Your task to perform on an android device: Open eBay Image 0: 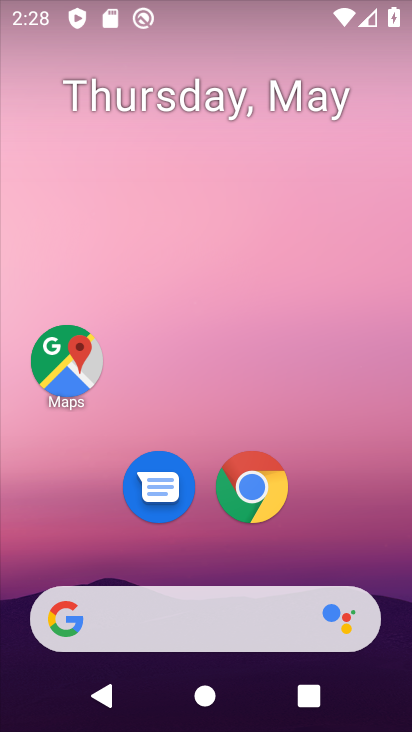
Step 0: drag from (212, 474) to (246, 62)
Your task to perform on an android device: Open eBay Image 1: 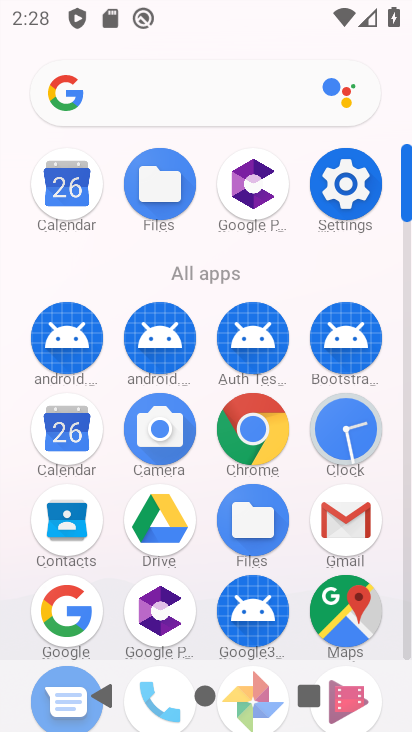
Step 1: click (266, 442)
Your task to perform on an android device: Open eBay Image 2: 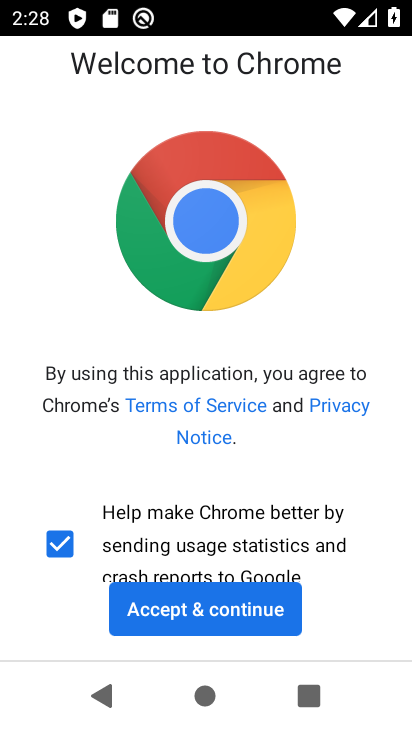
Step 2: click (228, 608)
Your task to perform on an android device: Open eBay Image 3: 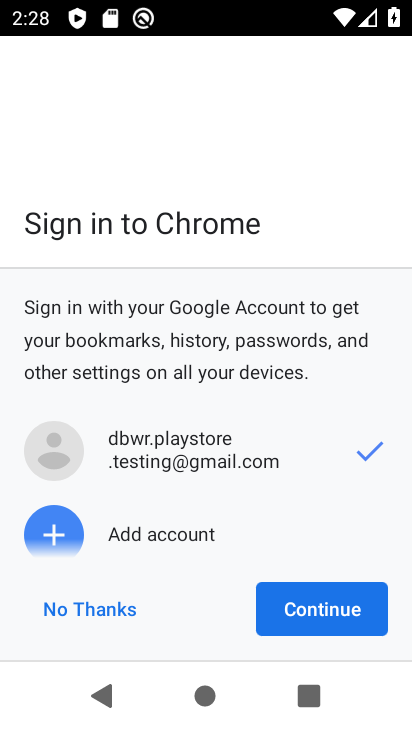
Step 3: click (307, 611)
Your task to perform on an android device: Open eBay Image 4: 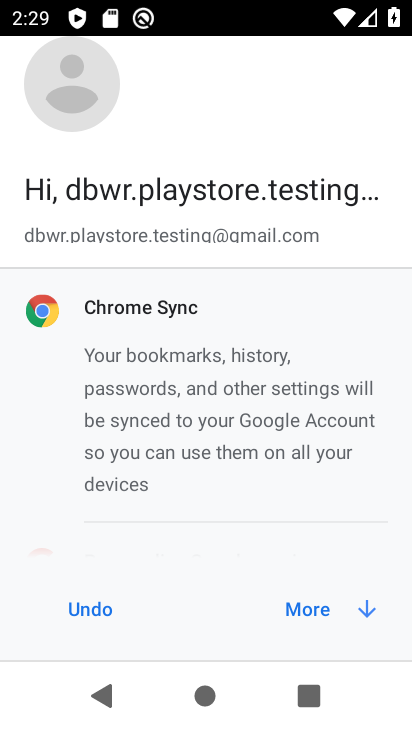
Step 4: click (344, 606)
Your task to perform on an android device: Open eBay Image 5: 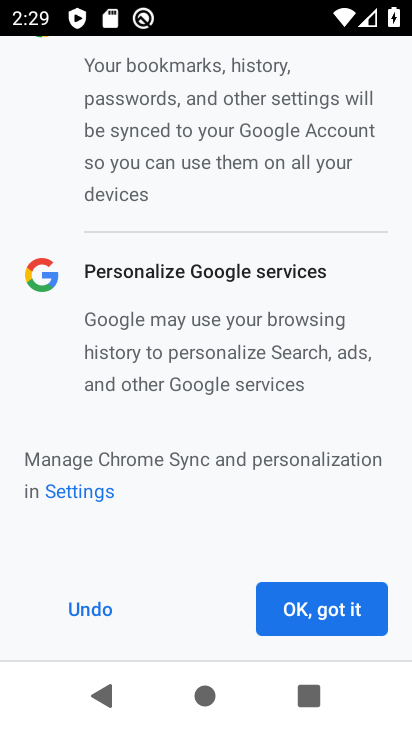
Step 5: click (341, 605)
Your task to perform on an android device: Open eBay Image 6: 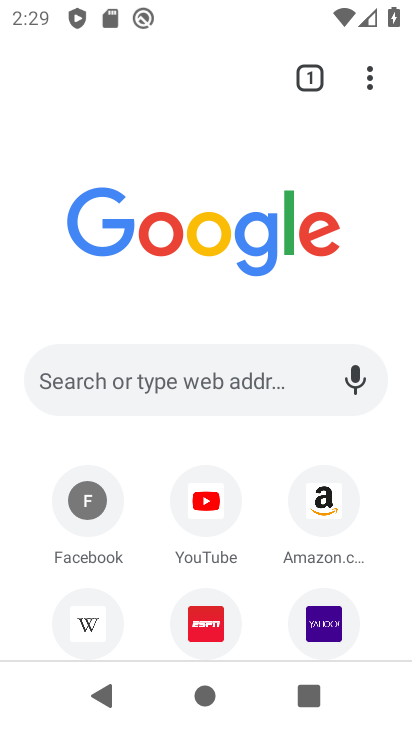
Step 6: drag from (296, 481) to (323, 383)
Your task to perform on an android device: Open eBay Image 7: 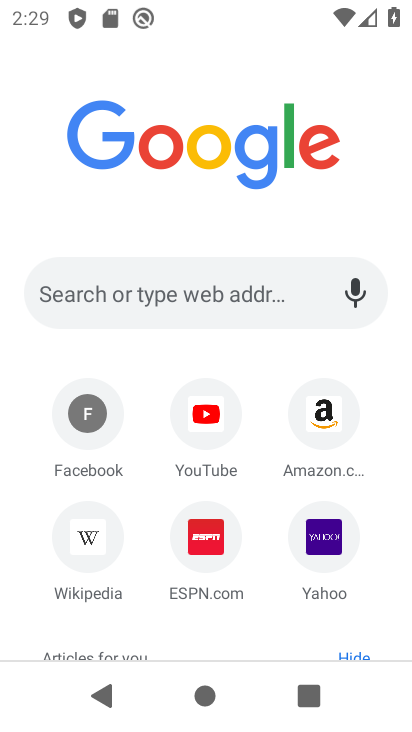
Step 7: click (231, 285)
Your task to perform on an android device: Open eBay Image 8: 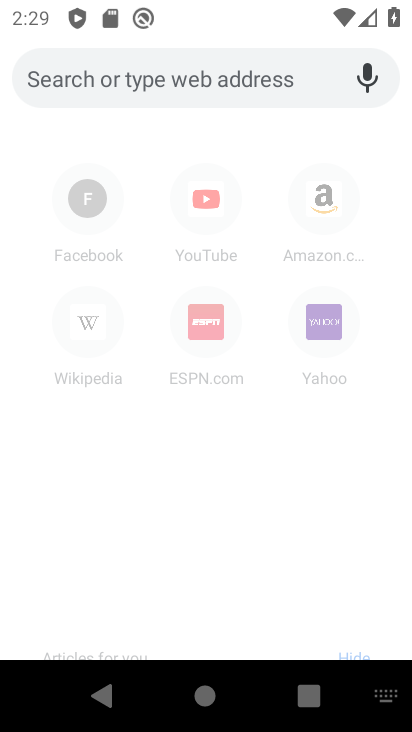
Step 8: type "ebay"
Your task to perform on an android device: Open eBay Image 9: 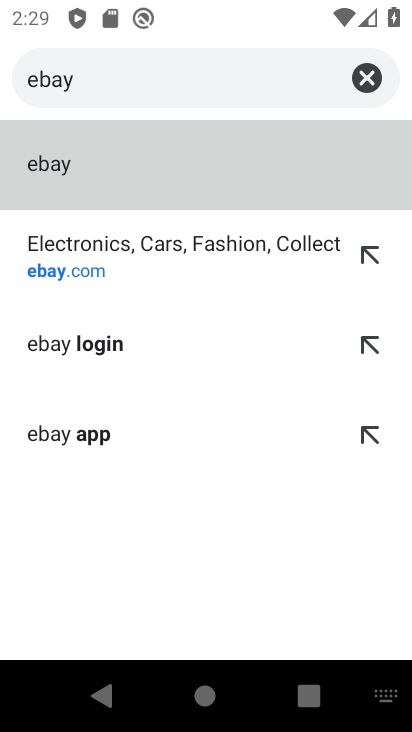
Step 9: click (166, 278)
Your task to perform on an android device: Open eBay Image 10: 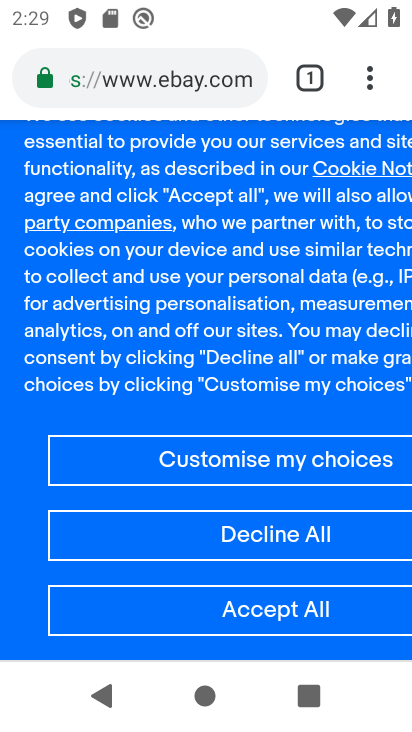
Step 10: task complete